Your task to perform on an android device: Open my contact list Image 0: 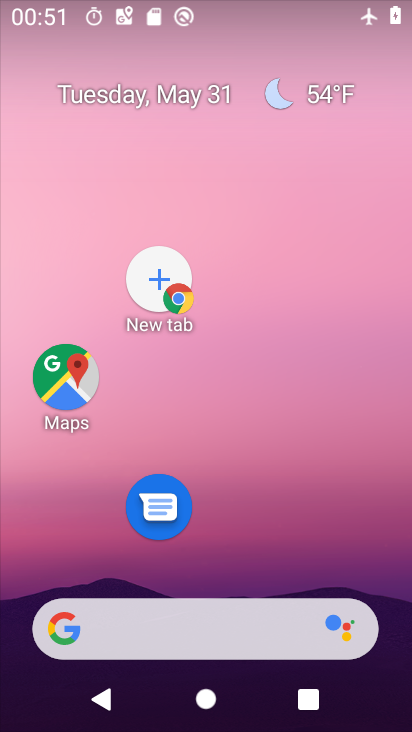
Step 0: drag from (255, 700) to (223, 193)
Your task to perform on an android device: Open my contact list Image 1: 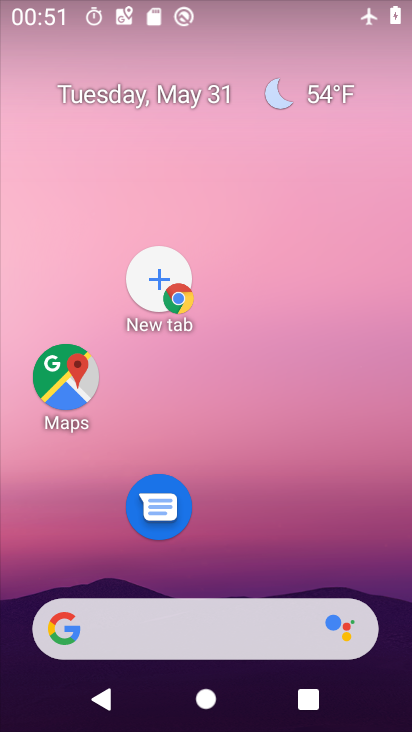
Step 1: drag from (249, 692) to (199, 189)
Your task to perform on an android device: Open my contact list Image 2: 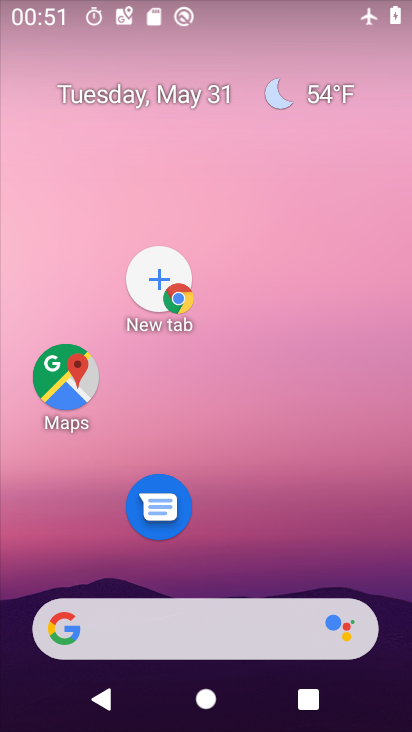
Step 2: click (198, 90)
Your task to perform on an android device: Open my contact list Image 3: 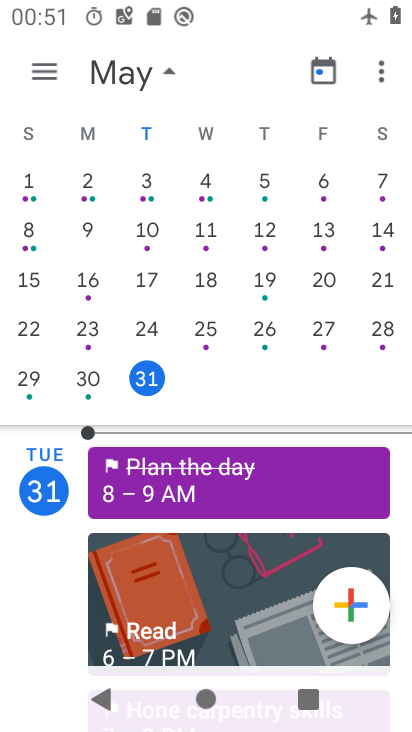
Step 3: drag from (218, 136) to (230, 28)
Your task to perform on an android device: Open my contact list Image 4: 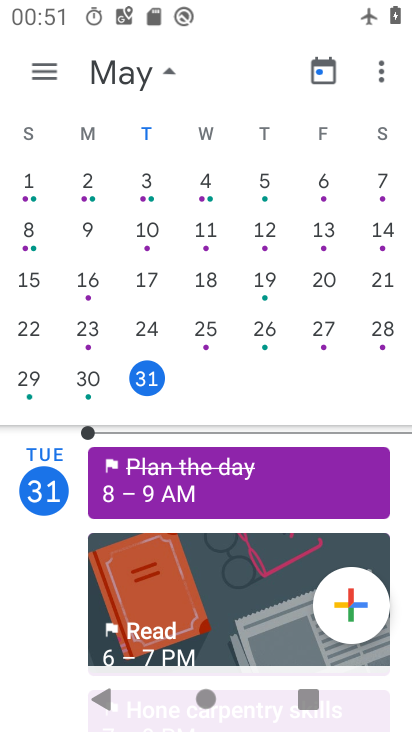
Step 4: drag from (284, 441) to (239, 45)
Your task to perform on an android device: Open my contact list Image 5: 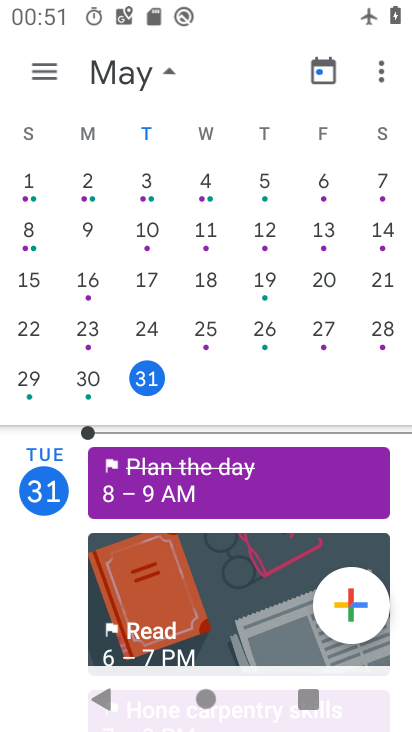
Step 5: drag from (239, 330) to (208, 198)
Your task to perform on an android device: Open my contact list Image 6: 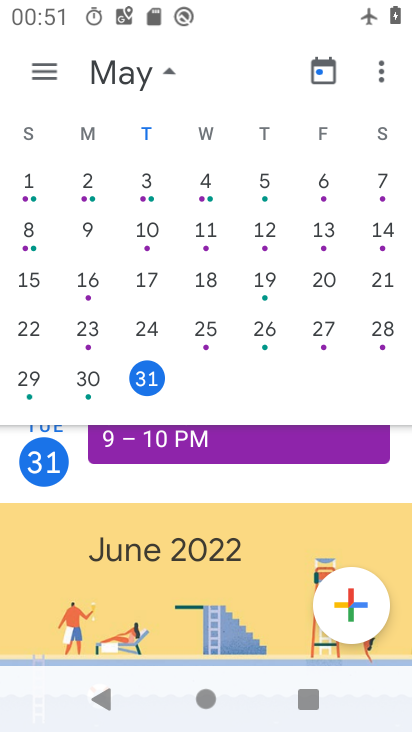
Step 6: press back button
Your task to perform on an android device: Open my contact list Image 7: 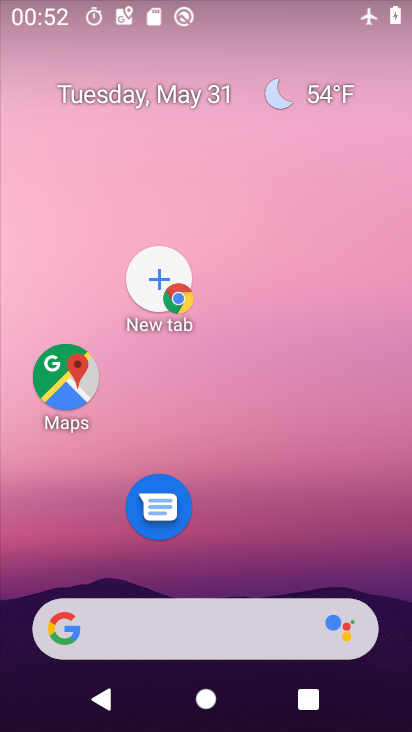
Step 7: drag from (259, 681) to (203, 237)
Your task to perform on an android device: Open my contact list Image 8: 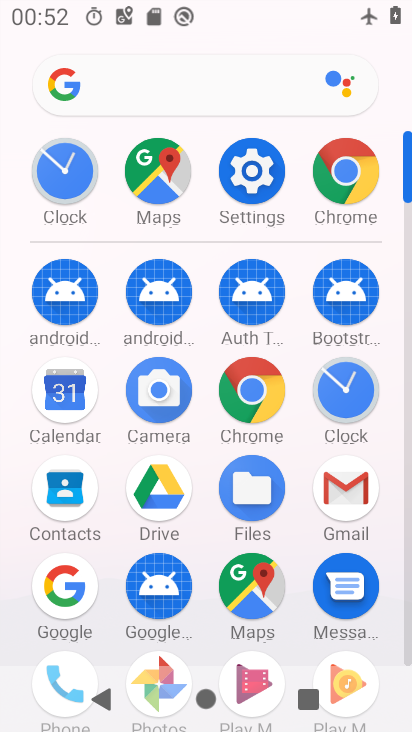
Step 8: click (65, 494)
Your task to perform on an android device: Open my contact list Image 9: 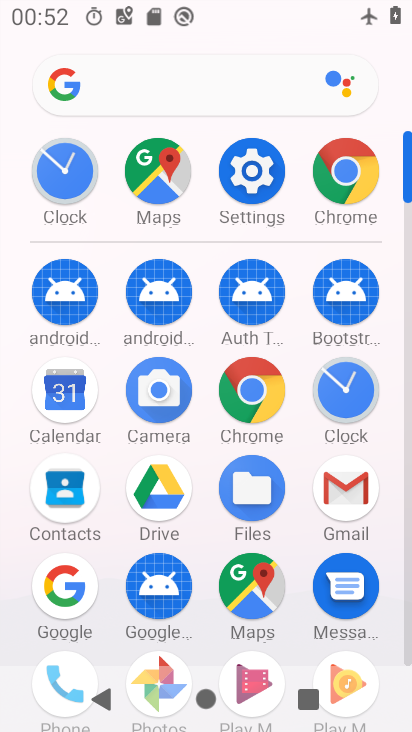
Step 9: click (65, 494)
Your task to perform on an android device: Open my contact list Image 10: 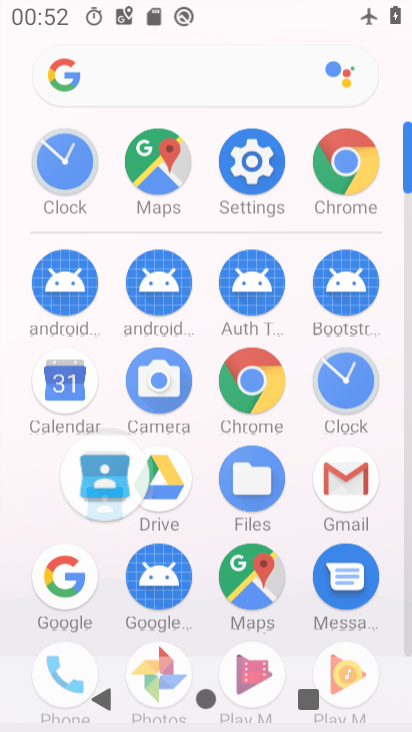
Step 10: click (65, 494)
Your task to perform on an android device: Open my contact list Image 11: 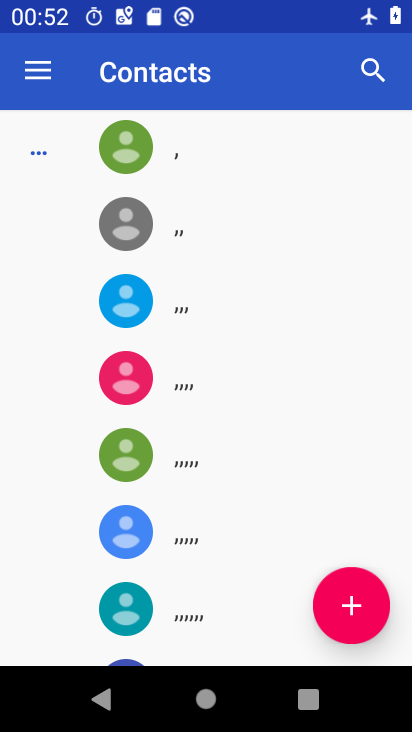
Step 11: task complete